Your task to perform on an android device: Go to Wikipedia Image 0: 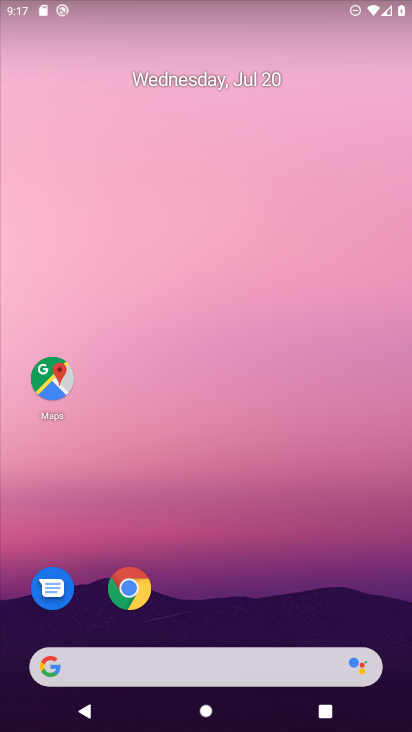
Step 0: click (218, 670)
Your task to perform on an android device: Go to Wikipedia Image 1: 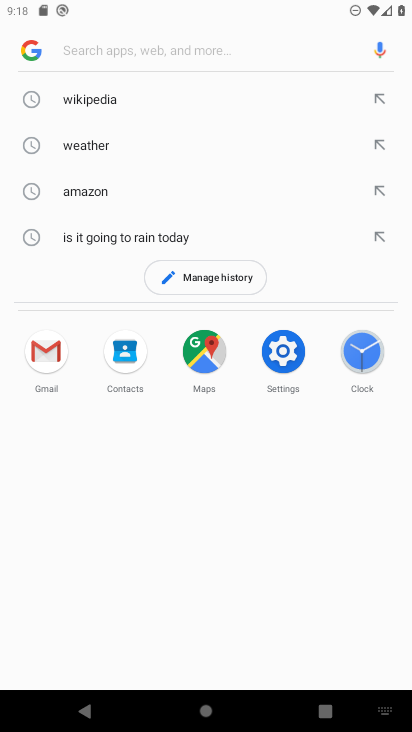
Step 1: click (115, 90)
Your task to perform on an android device: Go to Wikipedia Image 2: 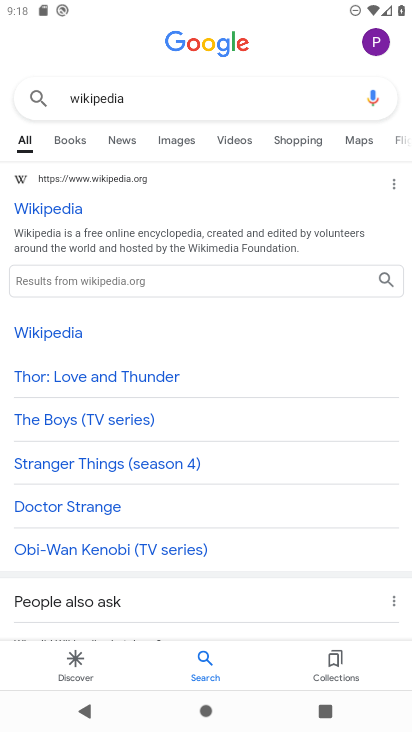
Step 2: click (65, 216)
Your task to perform on an android device: Go to Wikipedia Image 3: 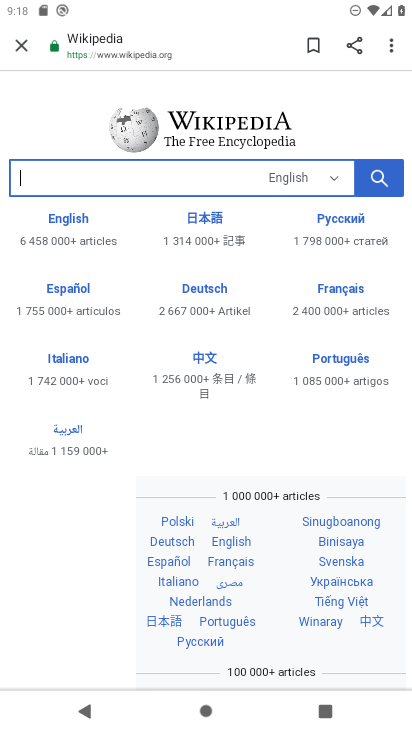
Step 3: task complete